Your task to perform on an android device: Open calendar and show me the first week of next month Image 0: 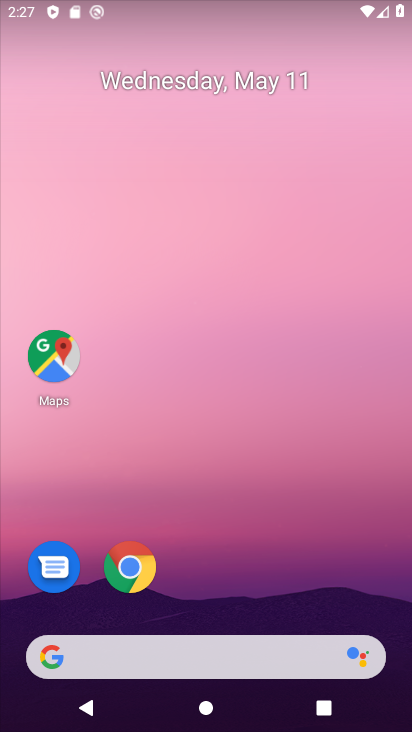
Step 0: drag from (226, 530) to (47, 6)
Your task to perform on an android device: Open calendar and show me the first week of next month Image 1: 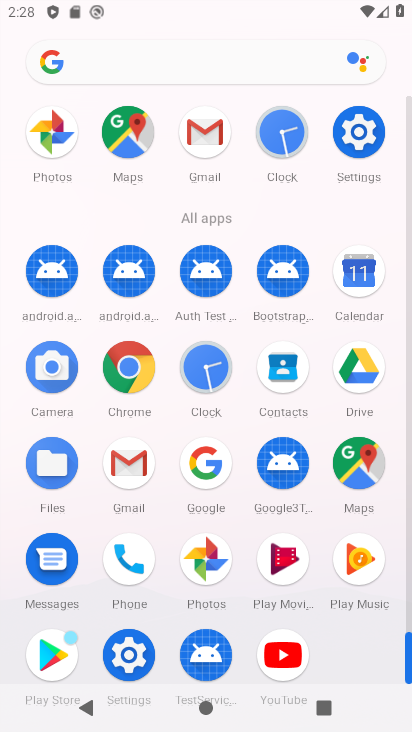
Step 1: drag from (12, 451) to (22, 214)
Your task to perform on an android device: Open calendar and show me the first week of next month Image 2: 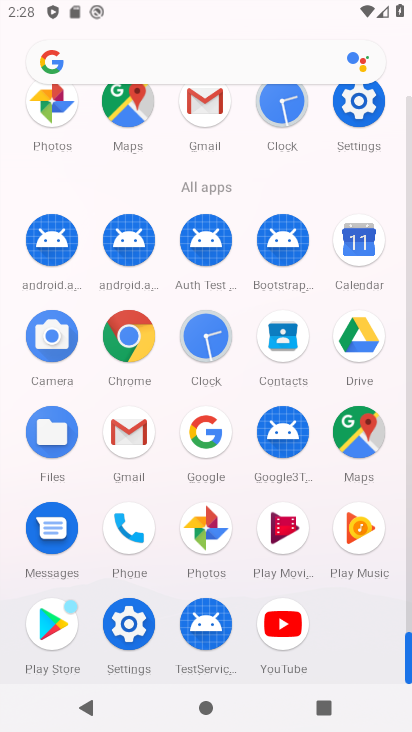
Step 2: click (359, 238)
Your task to perform on an android device: Open calendar and show me the first week of next month Image 3: 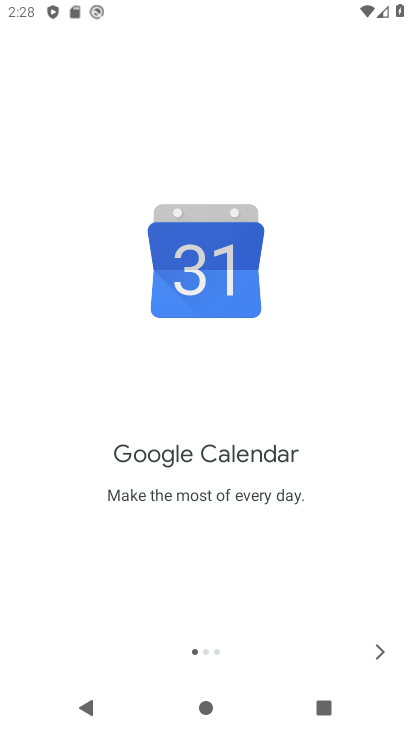
Step 3: click (367, 646)
Your task to perform on an android device: Open calendar and show me the first week of next month Image 4: 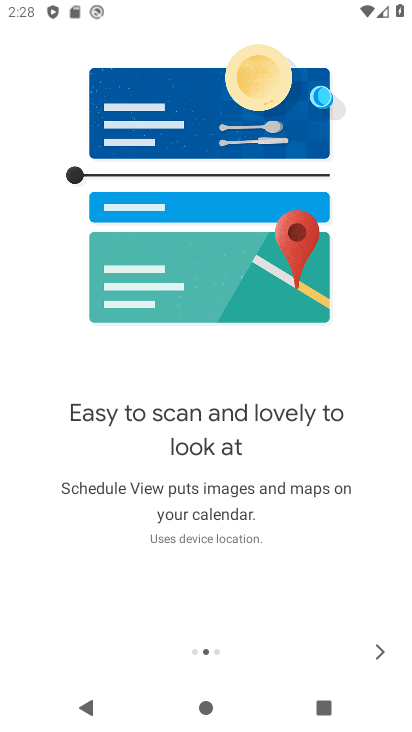
Step 4: click (375, 640)
Your task to perform on an android device: Open calendar and show me the first week of next month Image 5: 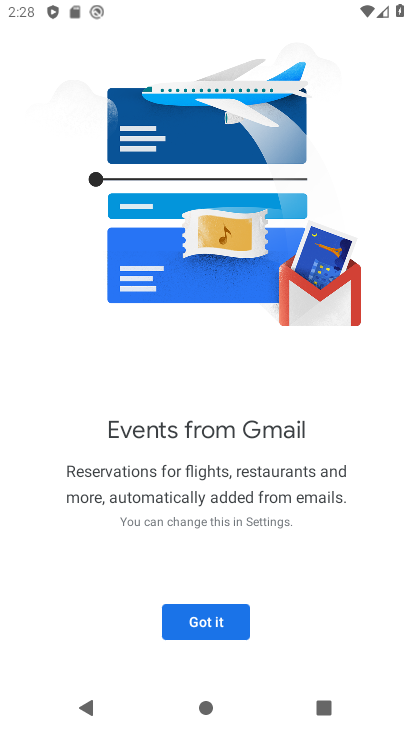
Step 5: click (218, 625)
Your task to perform on an android device: Open calendar and show me the first week of next month Image 6: 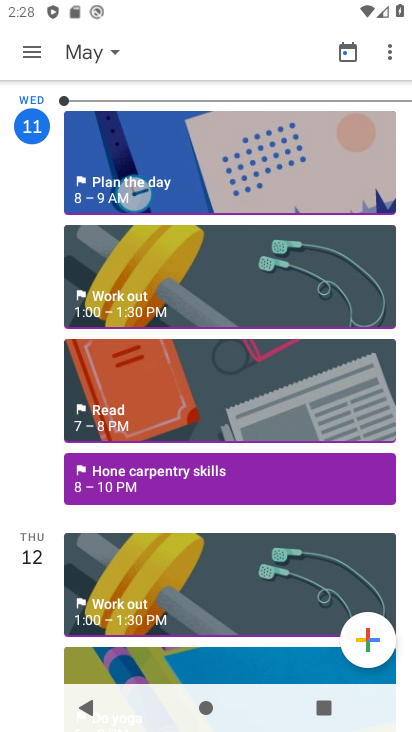
Step 6: click (72, 50)
Your task to perform on an android device: Open calendar and show me the first week of next month Image 7: 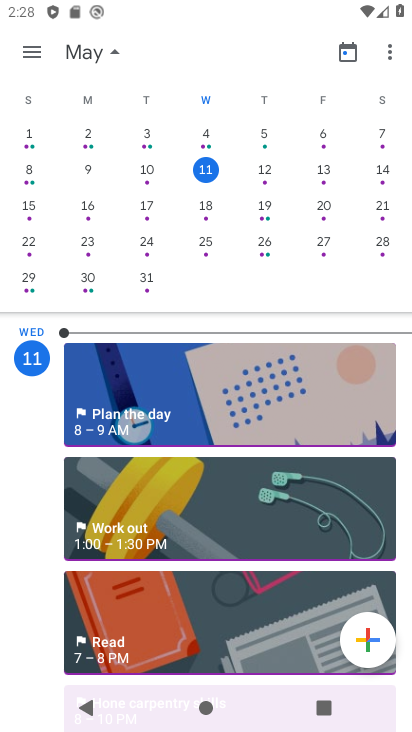
Step 7: drag from (375, 217) to (1, 197)
Your task to perform on an android device: Open calendar and show me the first week of next month Image 8: 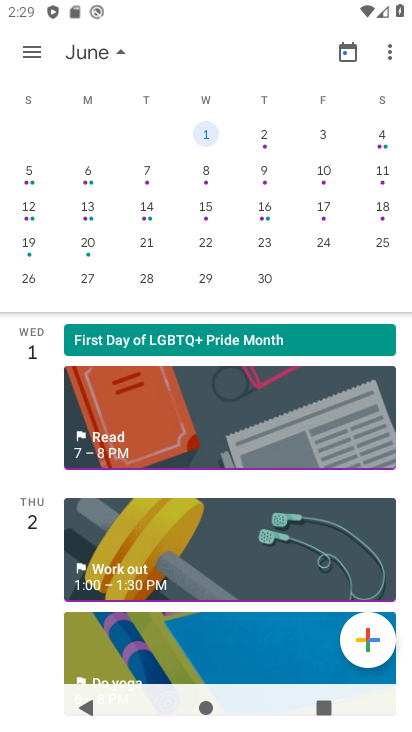
Step 8: click (213, 128)
Your task to perform on an android device: Open calendar and show me the first week of next month Image 9: 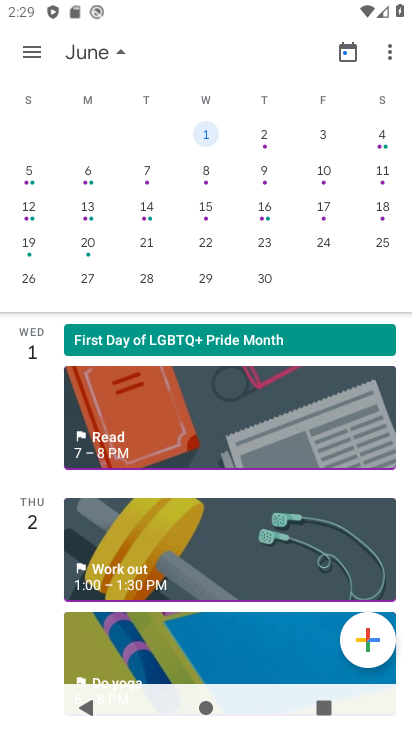
Step 9: click (30, 45)
Your task to perform on an android device: Open calendar and show me the first week of next month Image 10: 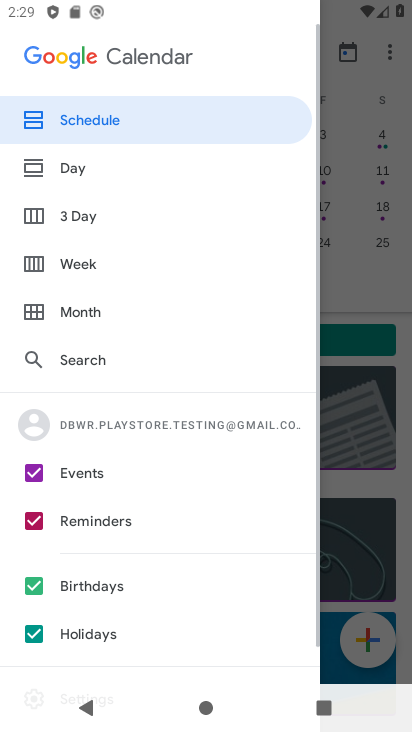
Step 10: click (90, 266)
Your task to perform on an android device: Open calendar and show me the first week of next month Image 11: 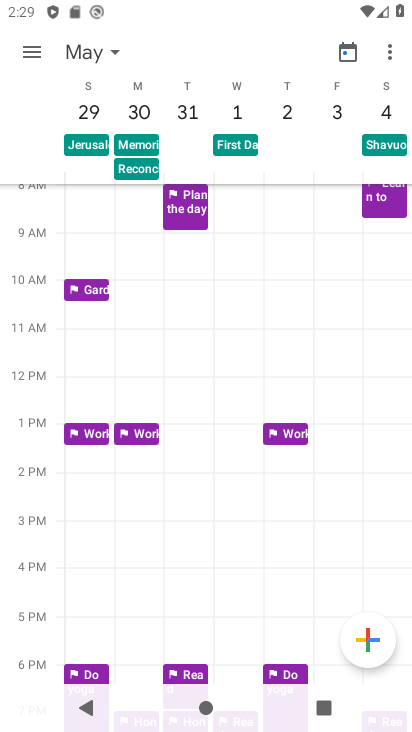
Step 11: task complete